Your task to perform on an android device: allow notifications from all sites in the chrome app Image 0: 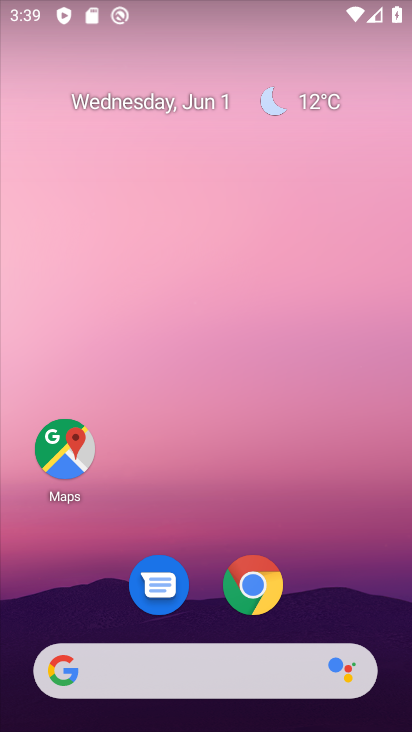
Step 0: click (250, 581)
Your task to perform on an android device: allow notifications from all sites in the chrome app Image 1: 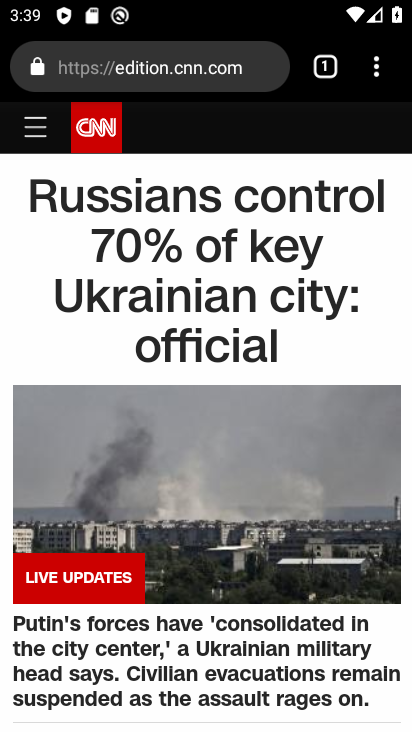
Step 1: click (377, 74)
Your task to perform on an android device: allow notifications from all sites in the chrome app Image 2: 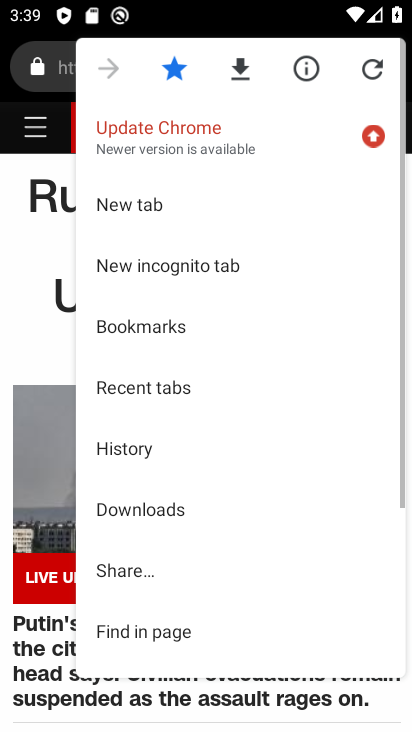
Step 2: drag from (249, 514) to (287, 301)
Your task to perform on an android device: allow notifications from all sites in the chrome app Image 3: 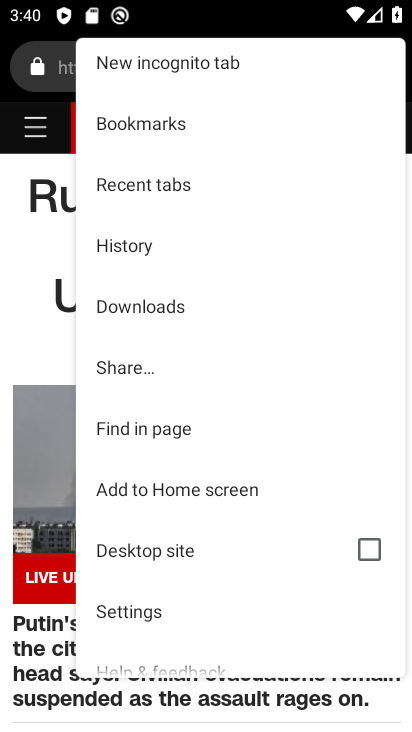
Step 3: click (177, 614)
Your task to perform on an android device: allow notifications from all sites in the chrome app Image 4: 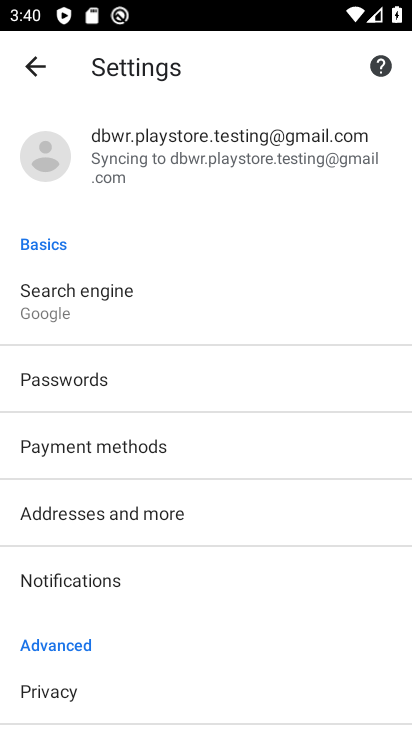
Step 4: click (274, 567)
Your task to perform on an android device: allow notifications from all sites in the chrome app Image 5: 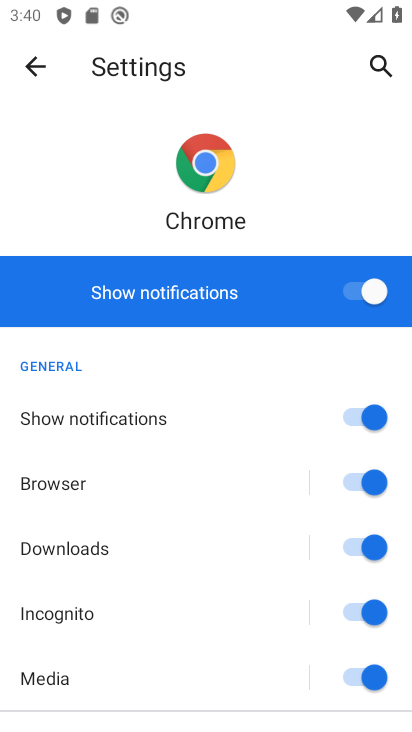
Step 5: task complete